Your task to perform on an android device: Open calendar and show me the fourth week of next month Image 0: 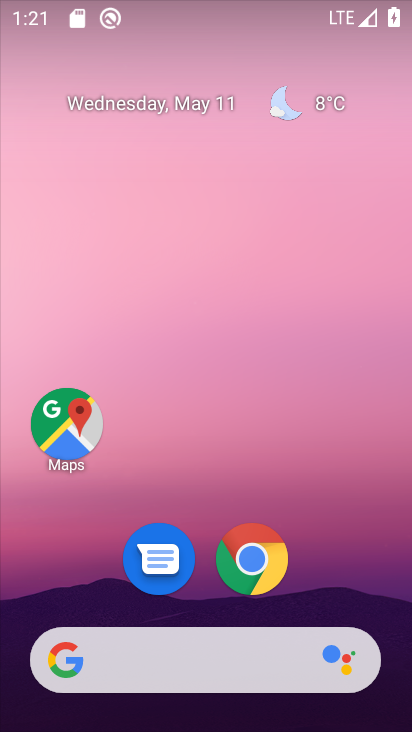
Step 0: drag from (199, 679) to (183, 141)
Your task to perform on an android device: Open calendar and show me the fourth week of next month Image 1: 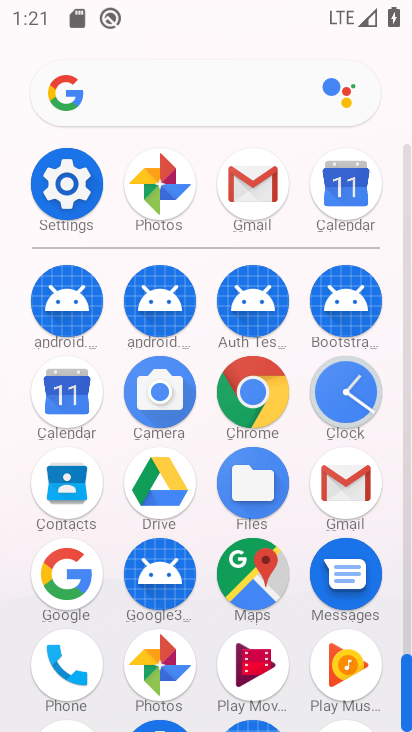
Step 1: click (73, 390)
Your task to perform on an android device: Open calendar and show me the fourth week of next month Image 2: 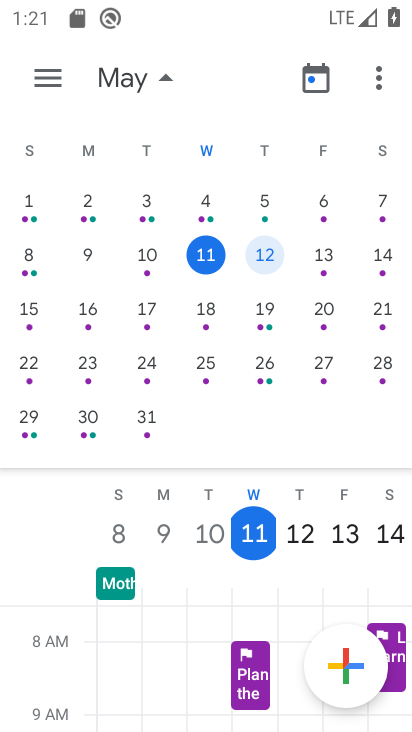
Step 2: drag from (345, 353) to (3, 318)
Your task to perform on an android device: Open calendar and show me the fourth week of next month Image 3: 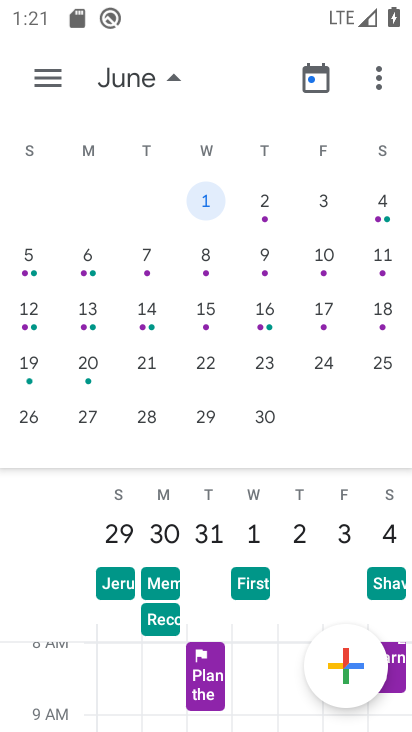
Step 3: click (86, 415)
Your task to perform on an android device: Open calendar and show me the fourth week of next month Image 4: 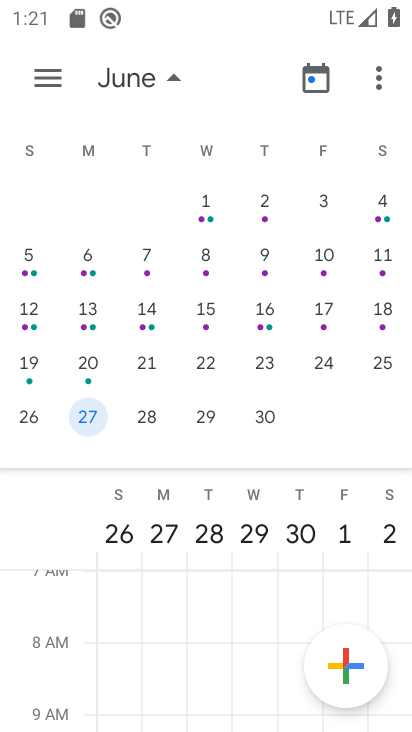
Step 4: click (39, 80)
Your task to perform on an android device: Open calendar and show me the fourth week of next month Image 5: 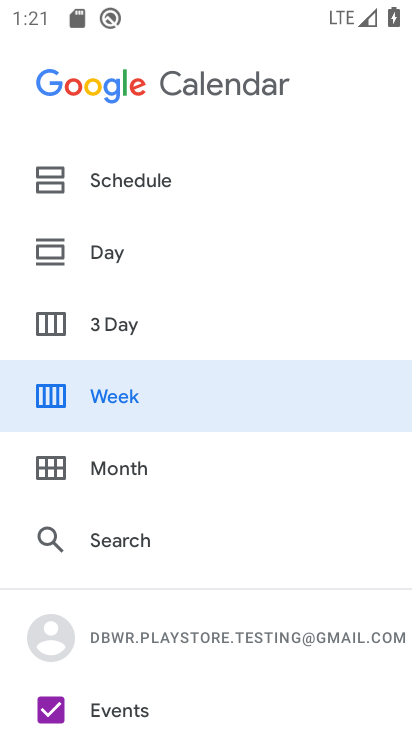
Step 5: click (98, 395)
Your task to perform on an android device: Open calendar and show me the fourth week of next month Image 6: 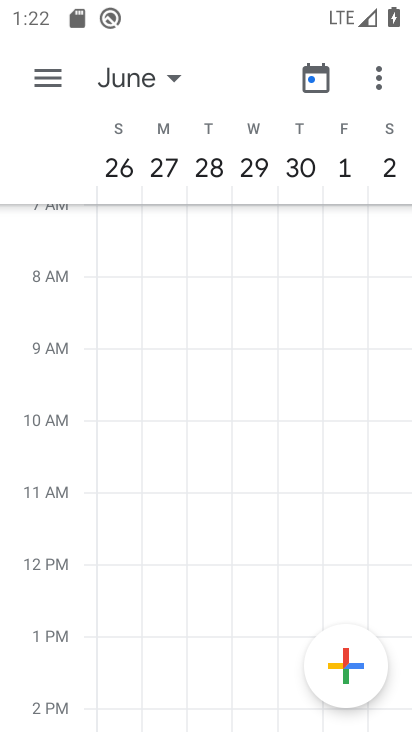
Step 6: task complete